Your task to perform on an android device: turn on notifications settings in the gmail app Image 0: 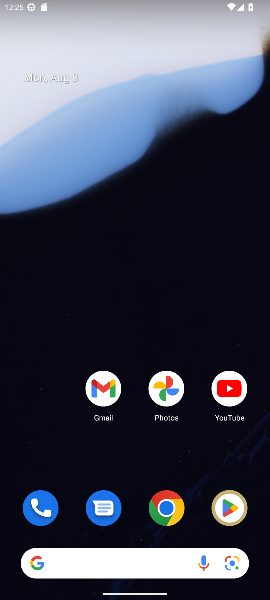
Step 0: drag from (195, 460) to (167, 153)
Your task to perform on an android device: turn on notifications settings in the gmail app Image 1: 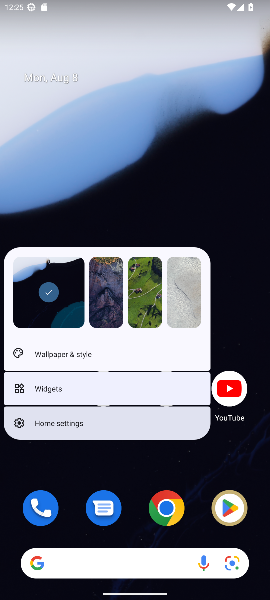
Step 1: click (236, 274)
Your task to perform on an android device: turn on notifications settings in the gmail app Image 2: 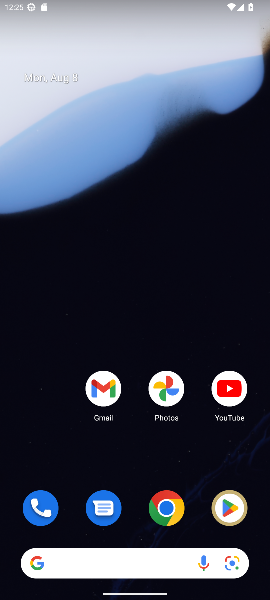
Step 2: click (105, 389)
Your task to perform on an android device: turn on notifications settings in the gmail app Image 3: 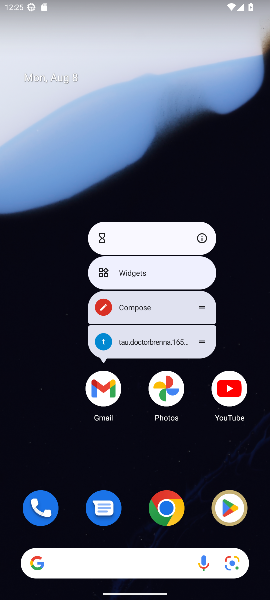
Step 3: click (203, 240)
Your task to perform on an android device: turn on notifications settings in the gmail app Image 4: 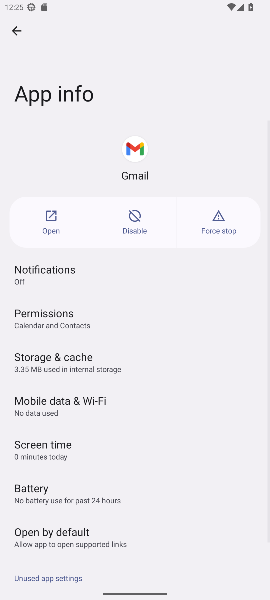
Step 4: click (58, 272)
Your task to perform on an android device: turn on notifications settings in the gmail app Image 5: 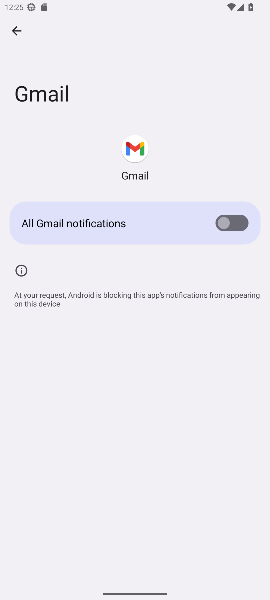
Step 5: click (236, 223)
Your task to perform on an android device: turn on notifications settings in the gmail app Image 6: 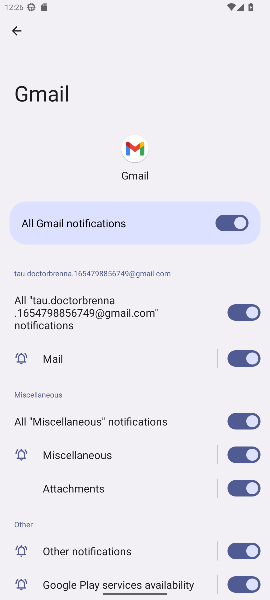
Step 6: task complete